Your task to perform on an android device: open the mobile data screen to see how much data has been used Image 0: 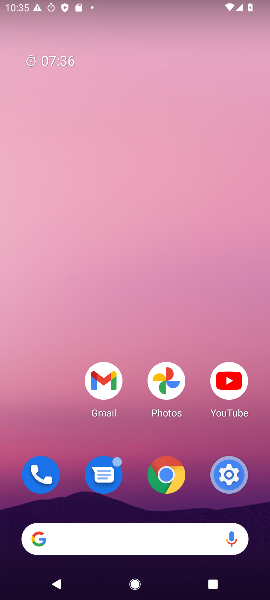
Step 0: click (223, 472)
Your task to perform on an android device: open the mobile data screen to see how much data has been used Image 1: 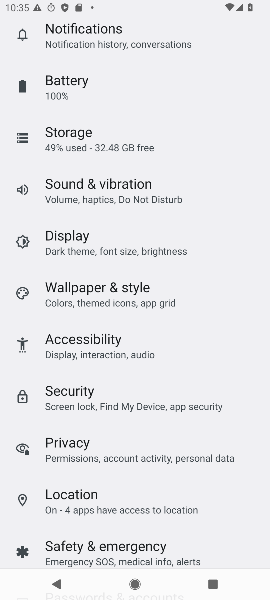
Step 1: drag from (161, 153) to (134, 493)
Your task to perform on an android device: open the mobile data screen to see how much data has been used Image 2: 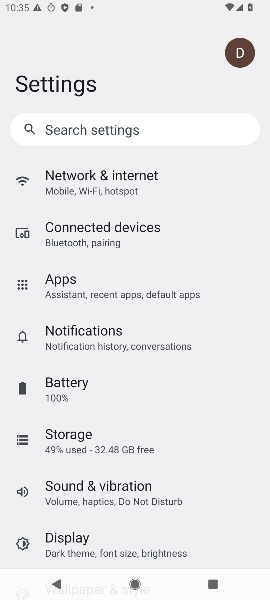
Step 2: click (94, 187)
Your task to perform on an android device: open the mobile data screen to see how much data has been used Image 3: 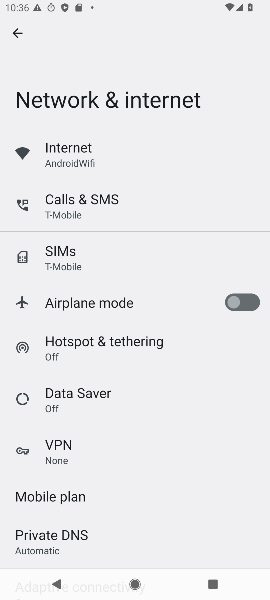
Step 3: click (61, 152)
Your task to perform on an android device: open the mobile data screen to see how much data has been used Image 4: 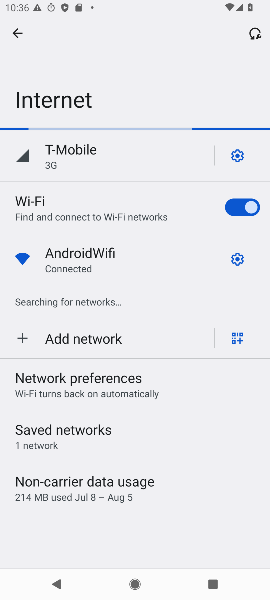
Step 4: click (232, 160)
Your task to perform on an android device: open the mobile data screen to see how much data has been used Image 5: 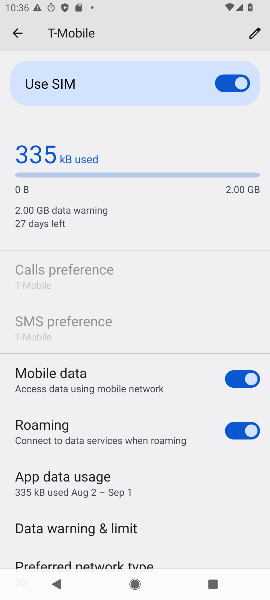
Step 5: click (78, 485)
Your task to perform on an android device: open the mobile data screen to see how much data has been used Image 6: 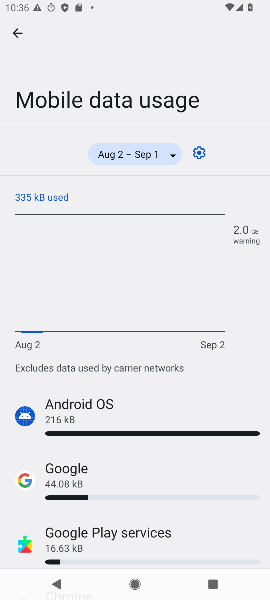
Step 6: task complete